Your task to perform on an android device: change the clock display to analog Image 0: 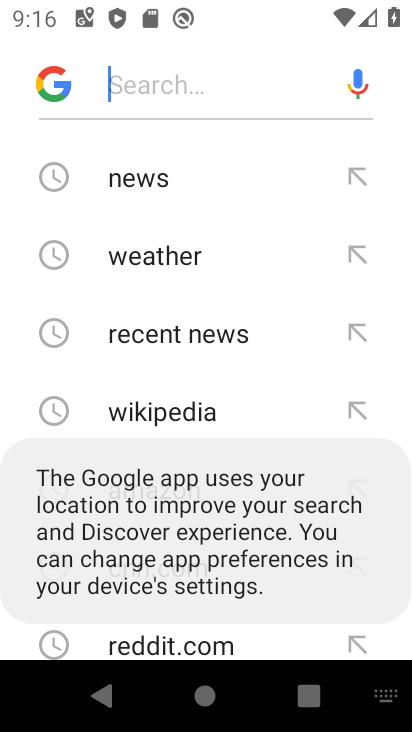
Step 0: press home button
Your task to perform on an android device: change the clock display to analog Image 1: 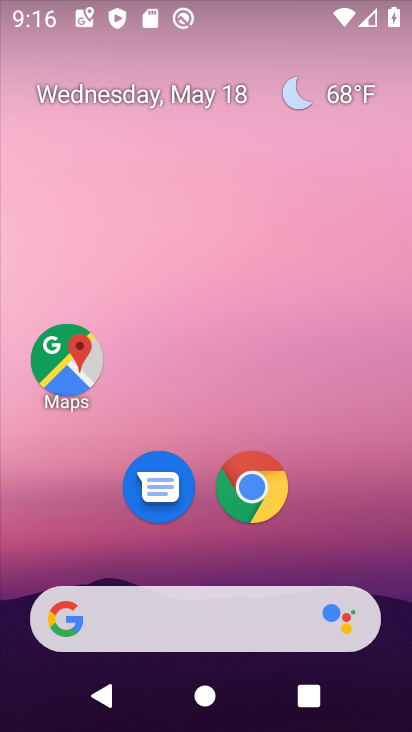
Step 1: drag from (349, 547) to (338, 180)
Your task to perform on an android device: change the clock display to analog Image 2: 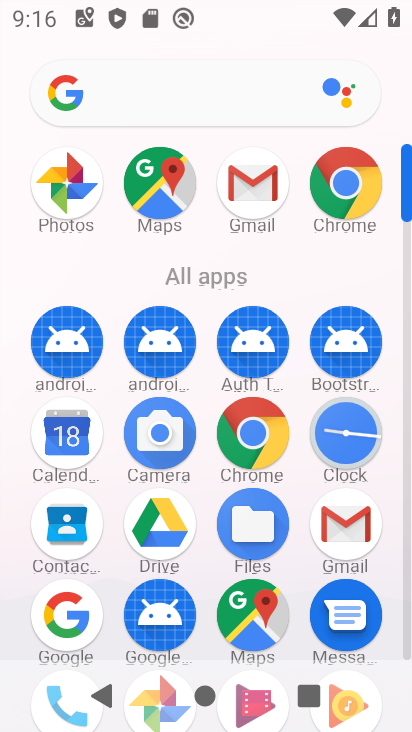
Step 2: click (350, 433)
Your task to perform on an android device: change the clock display to analog Image 3: 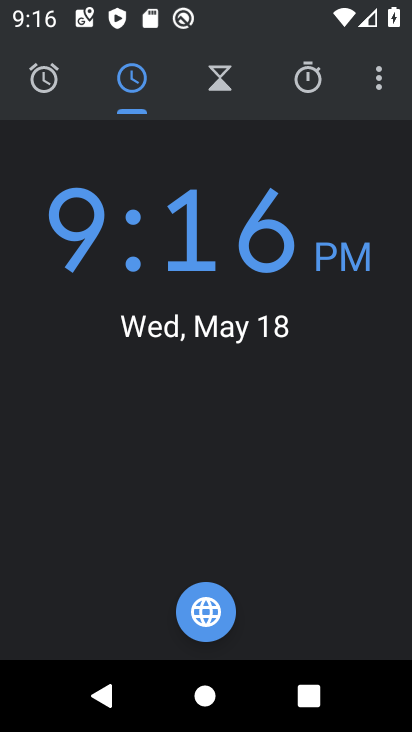
Step 3: drag from (378, 81) to (257, 165)
Your task to perform on an android device: change the clock display to analog Image 4: 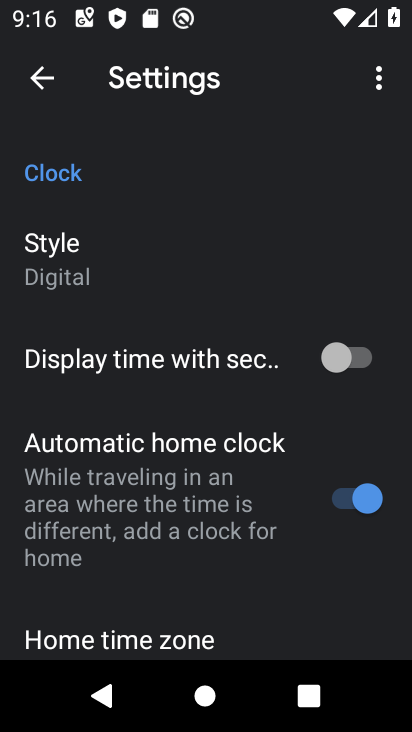
Step 4: click (130, 277)
Your task to perform on an android device: change the clock display to analog Image 5: 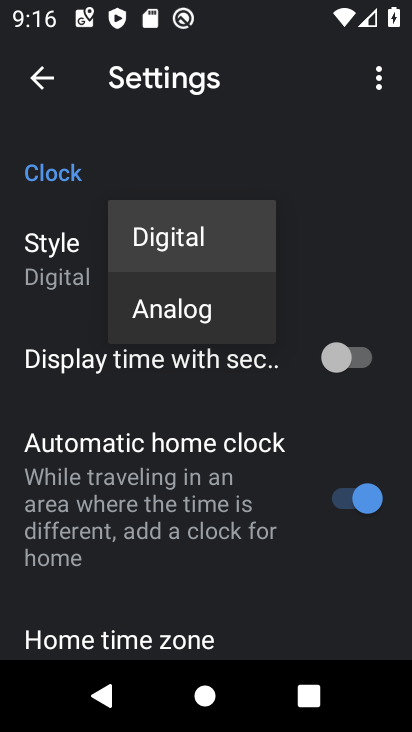
Step 5: click (150, 313)
Your task to perform on an android device: change the clock display to analog Image 6: 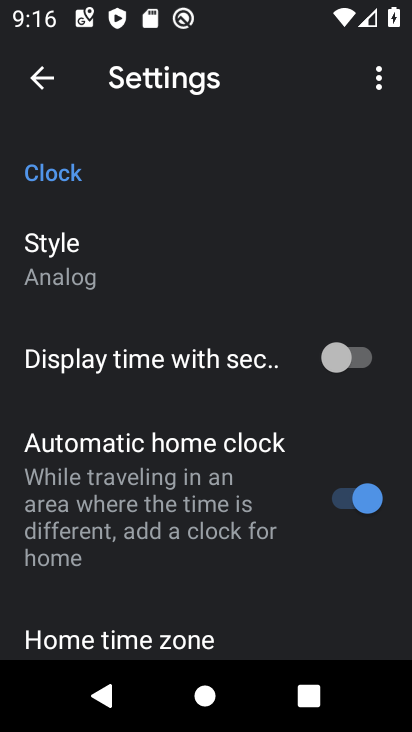
Step 6: task complete